Your task to perform on an android device: open app "Grab" Image 0: 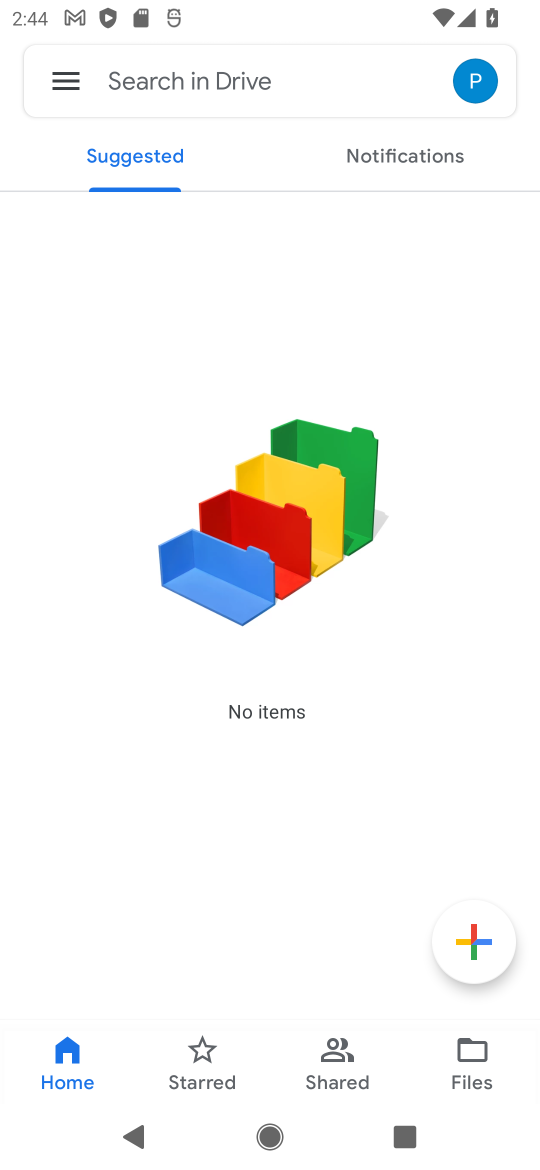
Step 0: press home button
Your task to perform on an android device: open app "Grab" Image 1: 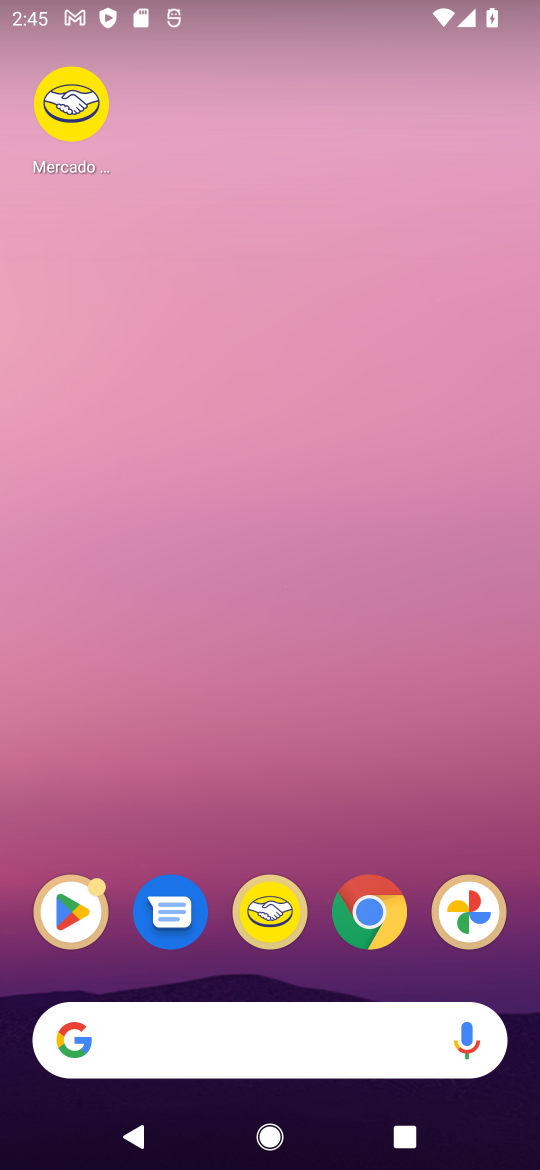
Step 1: click (63, 917)
Your task to perform on an android device: open app "Grab" Image 2: 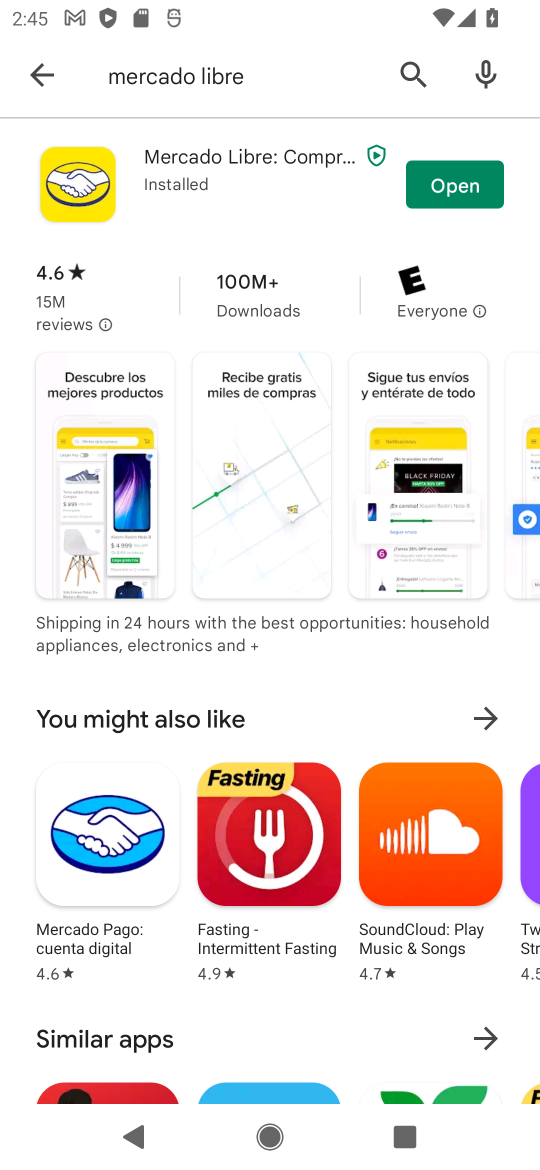
Step 2: click (394, 66)
Your task to perform on an android device: open app "Grab" Image 3: 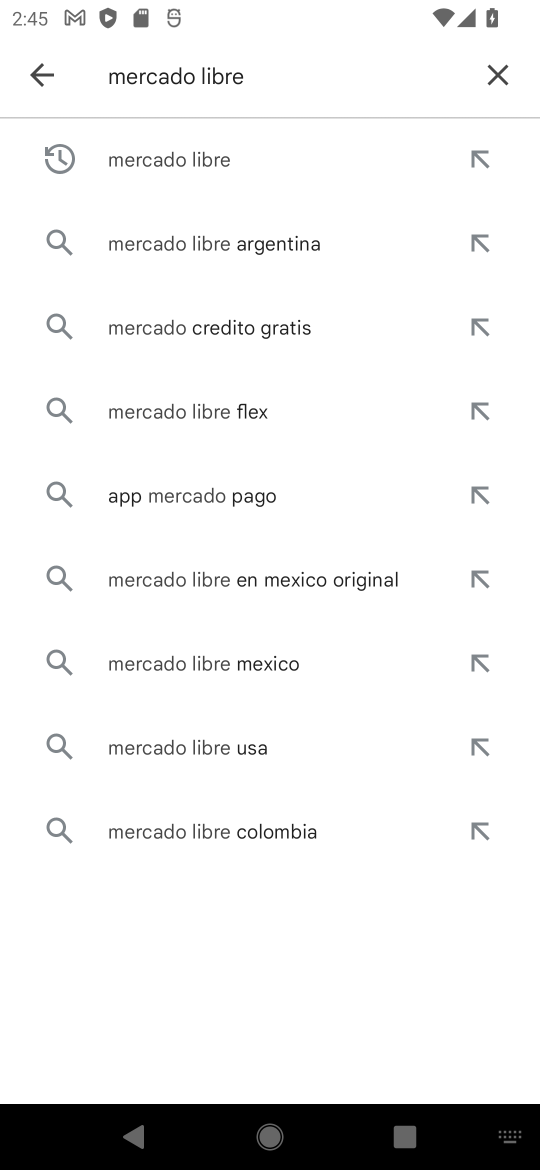
Step 3: click (502, 85)
Your task to perform on an android device: open app "Grab" Image 4: 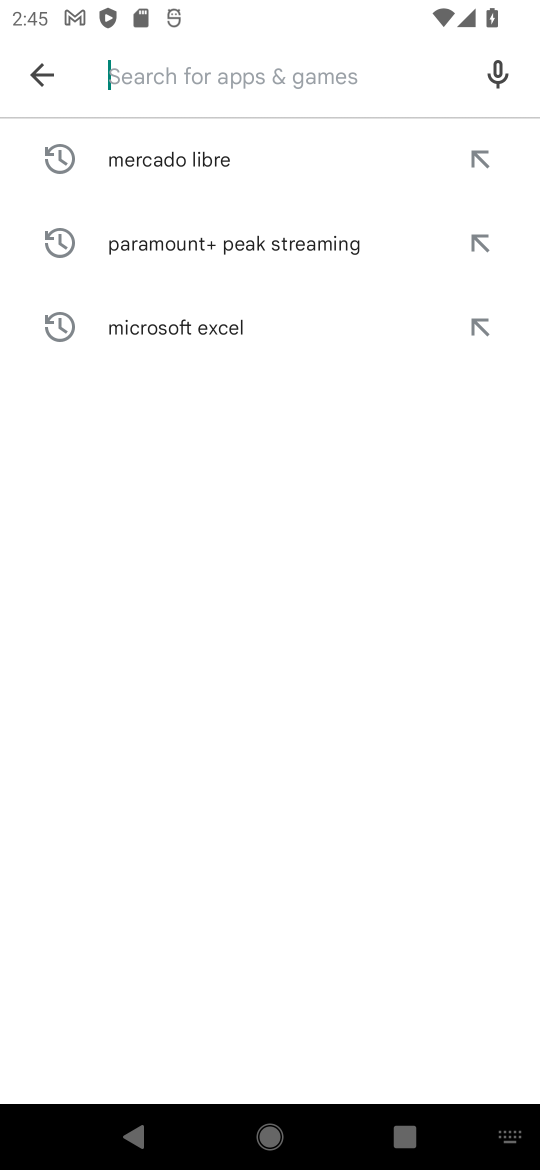
Step 4: type "Grab"
Your task to perform on an android device: open app "Grab" Image 5: 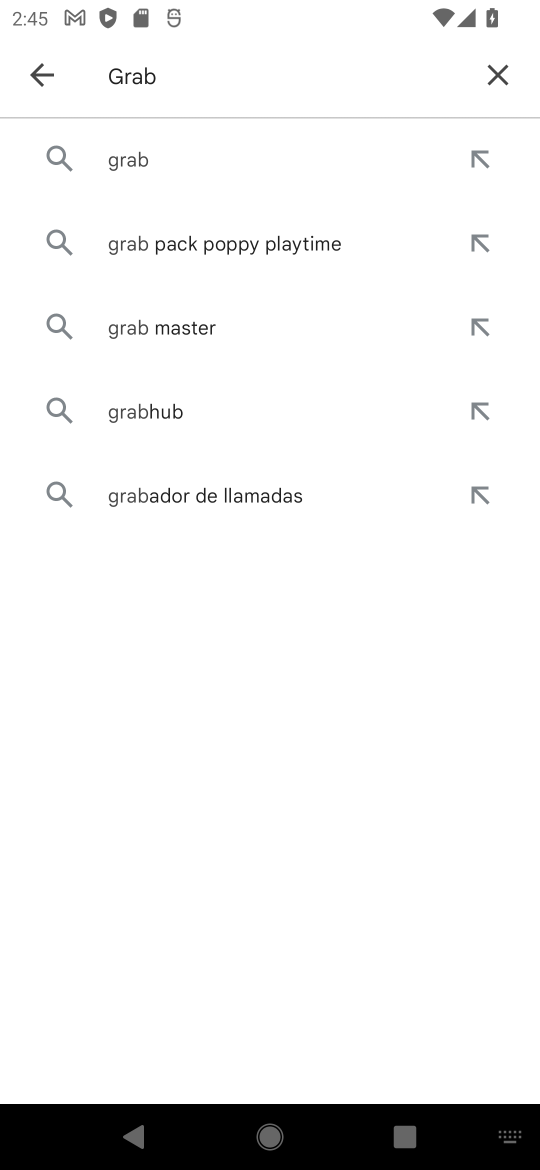
Step 5: click (115, 166)
Your task to perform on an android device: open app "Grab" Image 6: 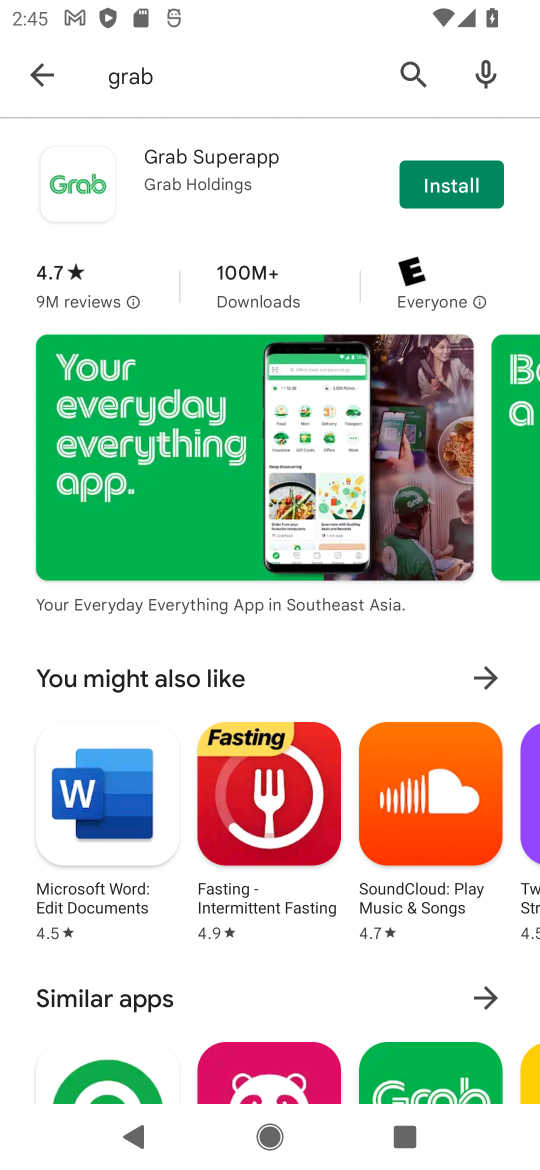
Step 6: task complete